Your task to perform on an android device: Open privacy settings Image 0: 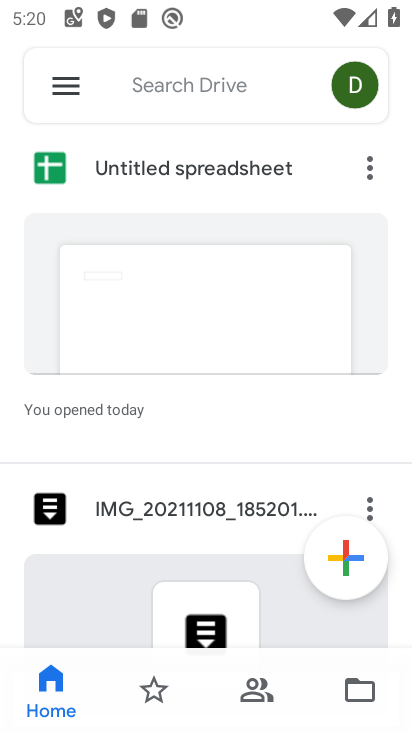
Step 0: press home button
Your task to perform on an android device: Open privacy settings Image 1: 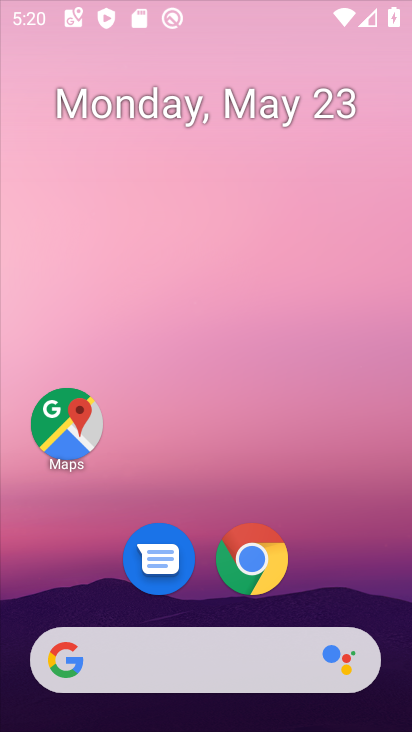
Step 1: drag from (265, 627) to (262, 32)
Your task to perform on an android device: Open privacy settings Image 2: 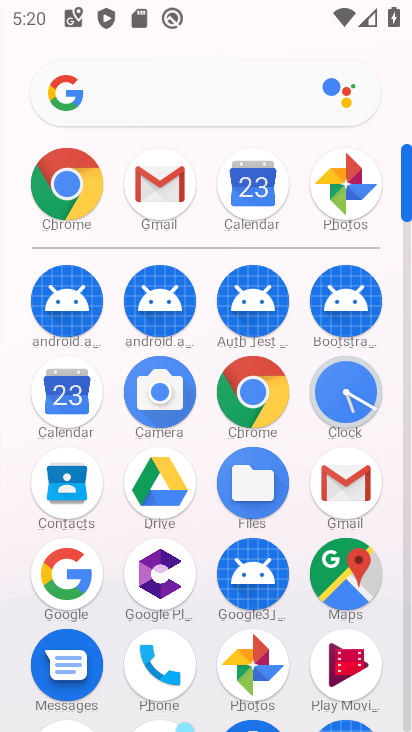
Step 2: drag from (292, 563) to (301, 93)
Your task to perform on an android device: Open privacy settings Image 3: 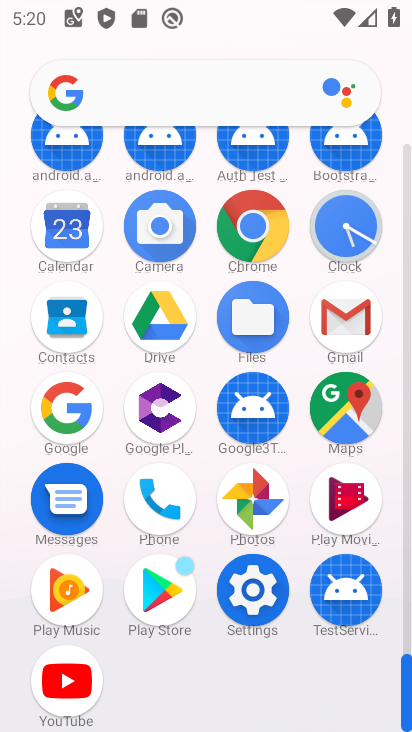
Step 3: click (255, 596)
Your task to perform on an android device: Open privacy settings Image 4: 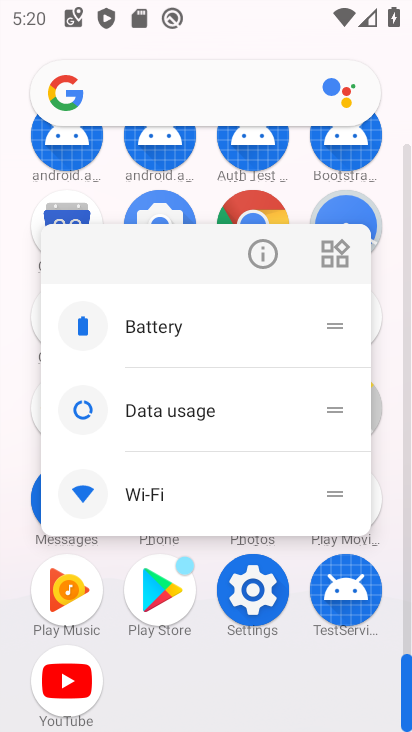
Step 4: click (255, 596)
Your task to perform on an android device: Open privacy settings Image 5: 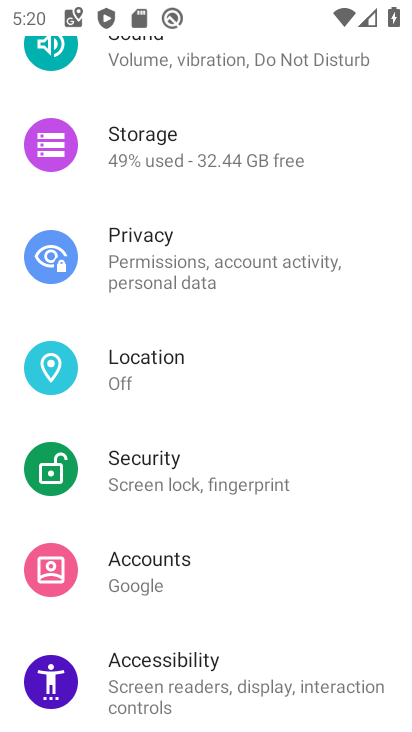
Step 5: click (196, 266)
Your task to perform on an android device: Open privacy settings Image 6: 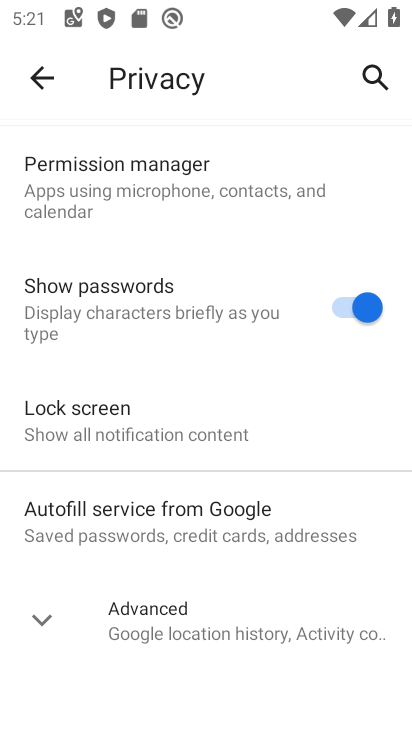
Step 6: task complete